Your task to perform on an android device: Open Reddit.com Image 0: 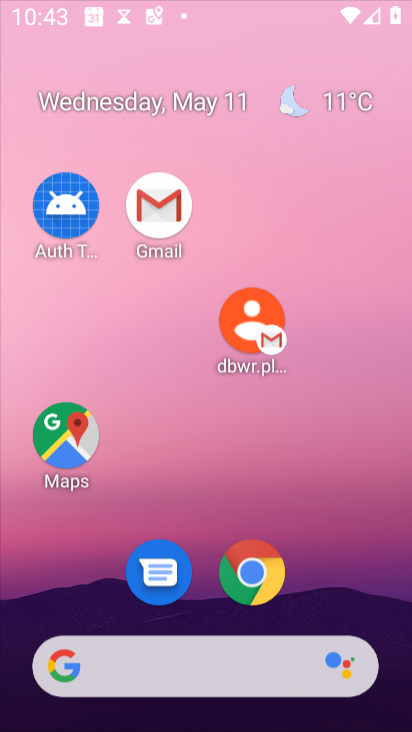
Step 0: drag from (189, 262) to (90, 44)
Your task to perform on an android device: Open Reddit.com Image 1: 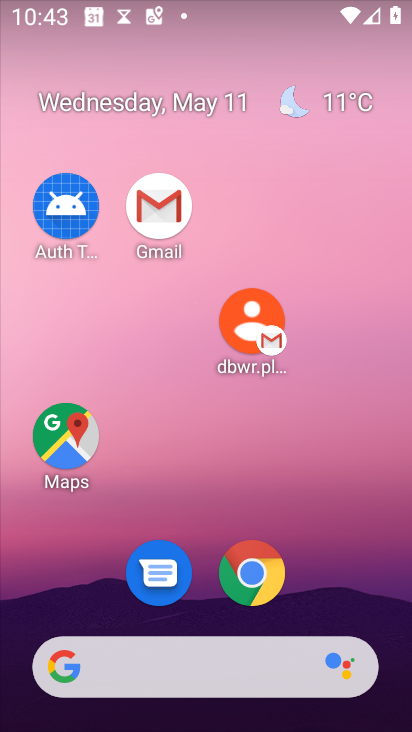
Step 1: drag from (316, 536) to (138, 11)
Your task to perform on an android device: Open Reddit.com Image 2: 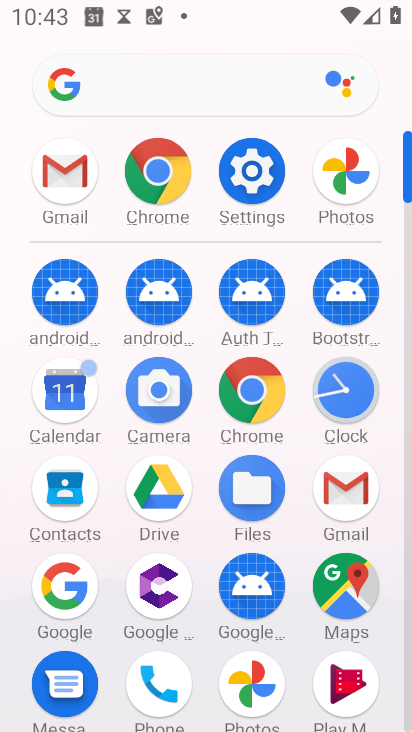
Step 2: click (163, 170)
Your task to perform on an android device: Open Reddit.com Image 3: 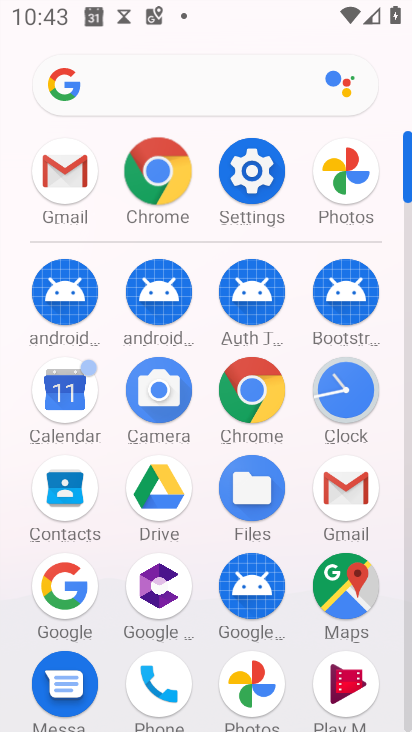
Step 3: click (163, 170)
Your task to perform on an android device: Open Reddit.com Image 4: 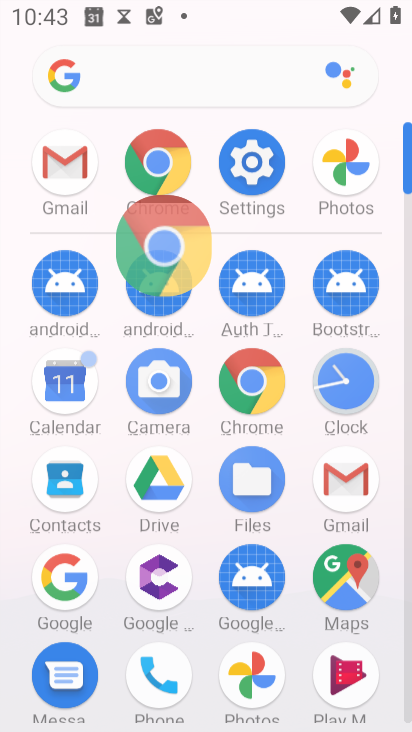
Step 4: click (163, 170)
Your task to perform on an android device: Open Reddit.com Image 5: 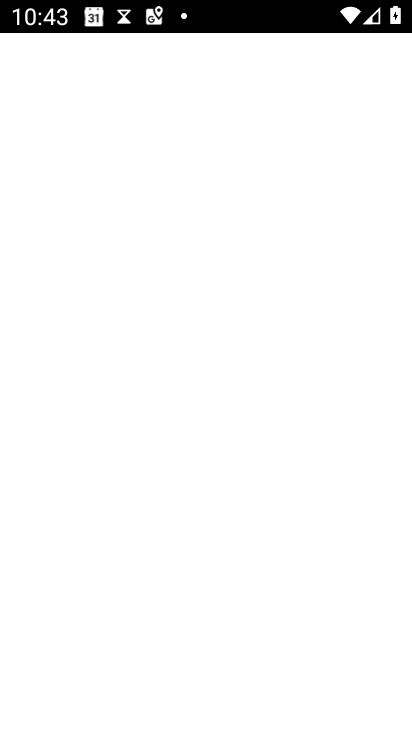
Step 5: click (165, 173)
Your task to perform on an android device: Open Reddit.com Image 6: 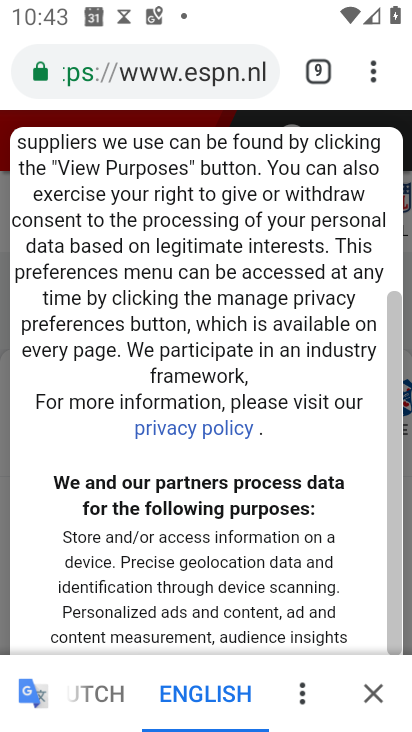
Step 6: click (373, 73)
Your task to perform on an android device: Open Reddit.com Image 7: 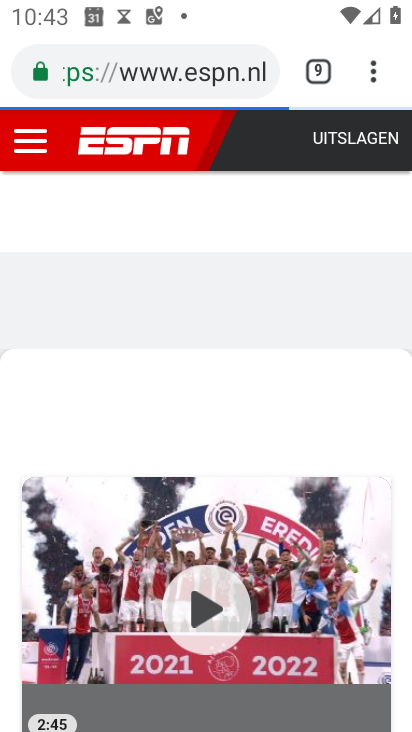
Step 7: drag from (375, 68) to (91, 143)
Your task to perform on an android device: Open Reddit.com Image 8: 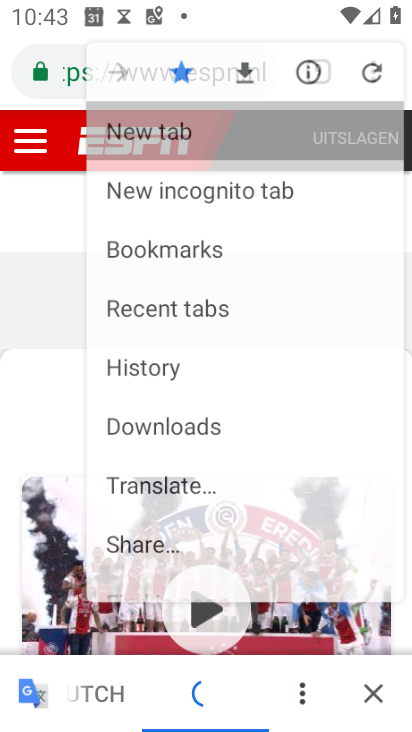
Step 8: click (91, 143)
Your task to perform on an android device: Open Reddit.com Image 9: 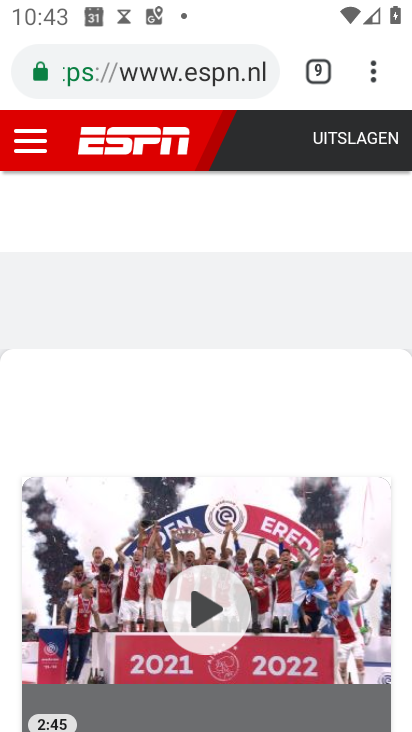
Step 9: click (92, 142)
Your task to perform on an android device: Open Reddit.com Image 10: 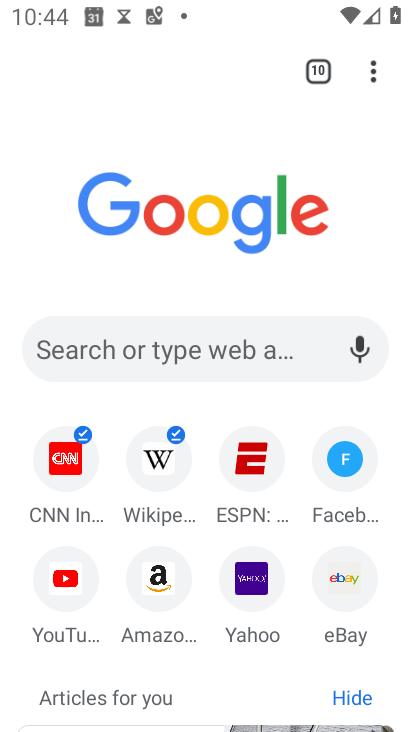
Step 10: click (100, 352)
Your task to perform on an android device: Open Reddit.com Image 11: 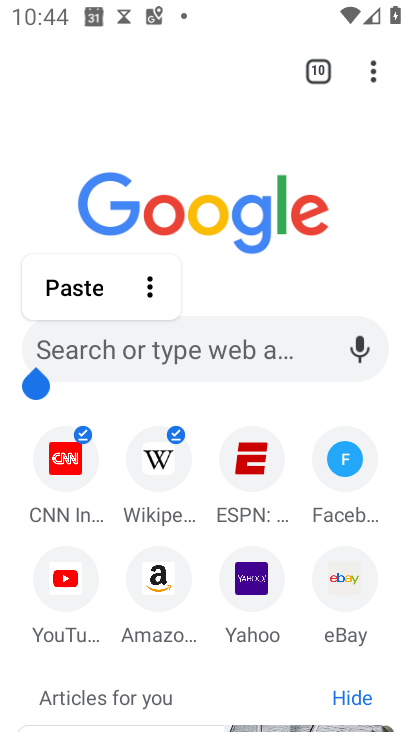
Step 11: click (72, 339)
Your task to perform on an android device: Open Reddit.com Image 12: 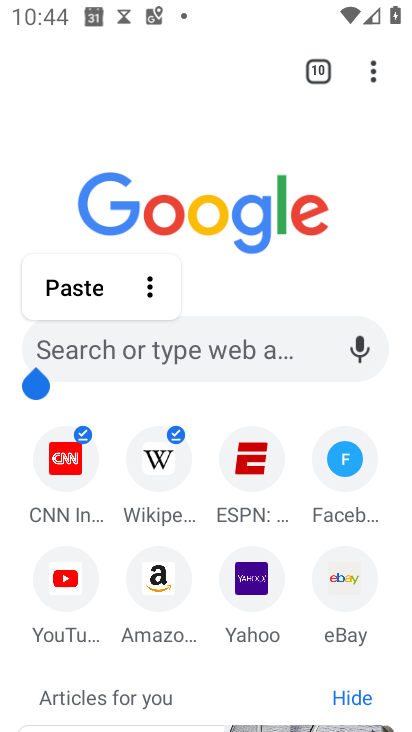
Step 12: click (72, 345)
Your task to perform on an android device: Open Reddit.com Image 13: 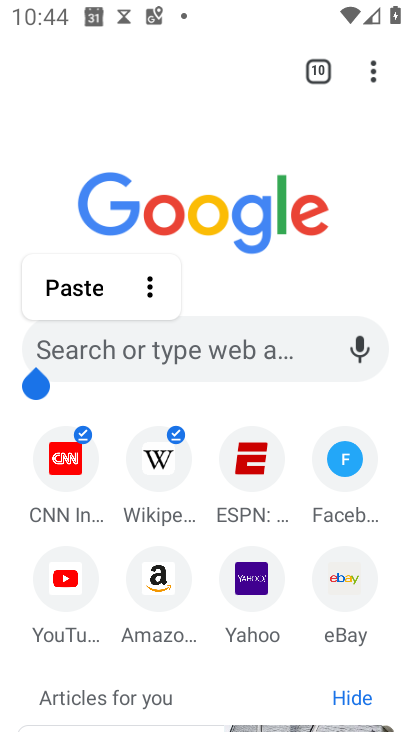
Step 13: click (71, 347)
Your task to perform on an android device: Open Reddit.com Image 14: 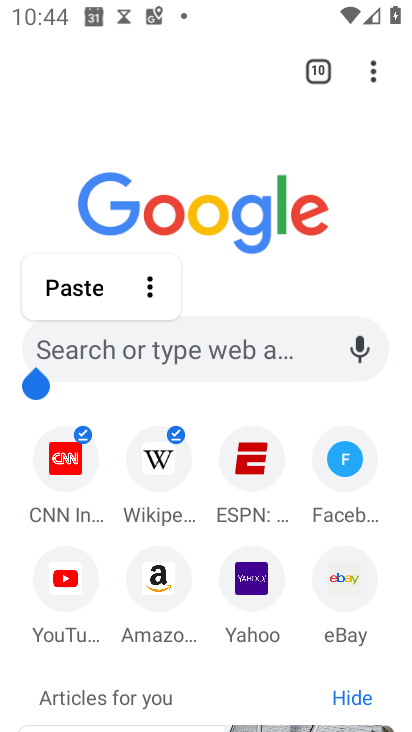
Step 14: click (71, 347)
Your task to perform on an android device: Open Reddit.com Image 15: 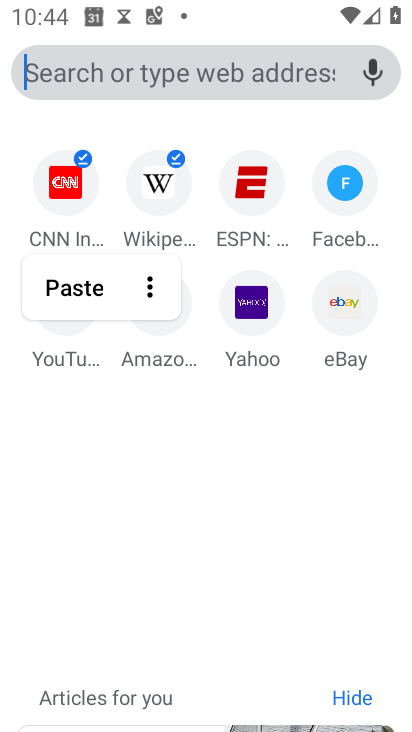
Step 15: click (71, 347)
Your task to perform on an android device: Open Reddit.com Image 16: 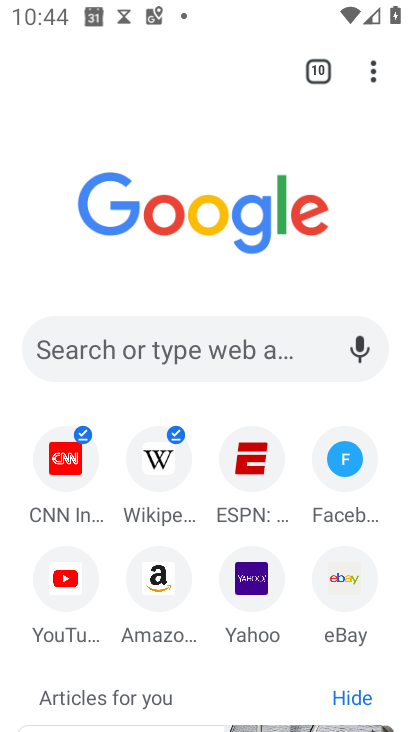
Step 16: click (70, 348)
Your task to perform on an android device: Open Reddit.com Image 17: 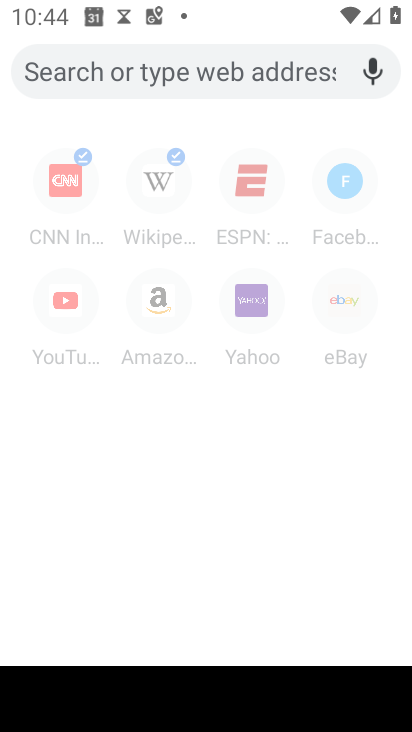
Step 17: click (77, 342)
Your task to perform on an android device: Open Reddit.com Image 18: 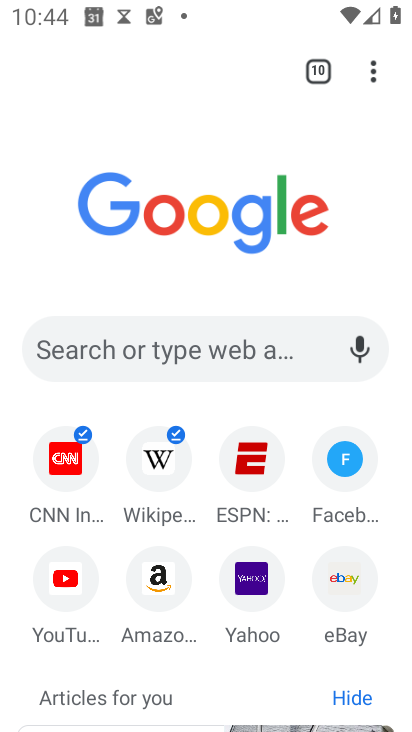
Step 18: click (46, 341)
Your task to perform on an android device: Open Reddit.com Image 19: 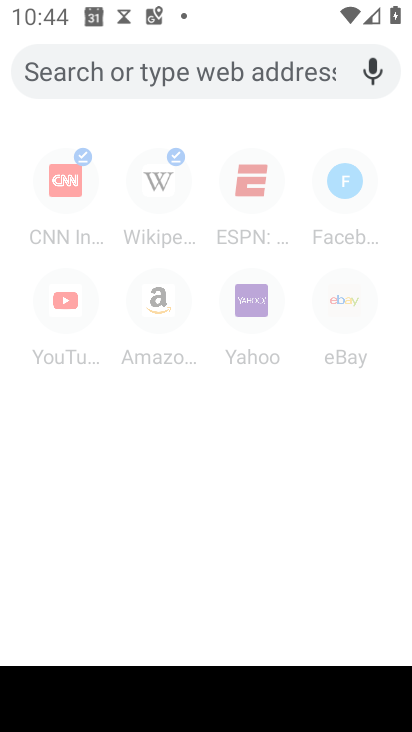
Step 19: type "reddit.com"
Your task to perform on an android device: Open Reddit.com Image 20: 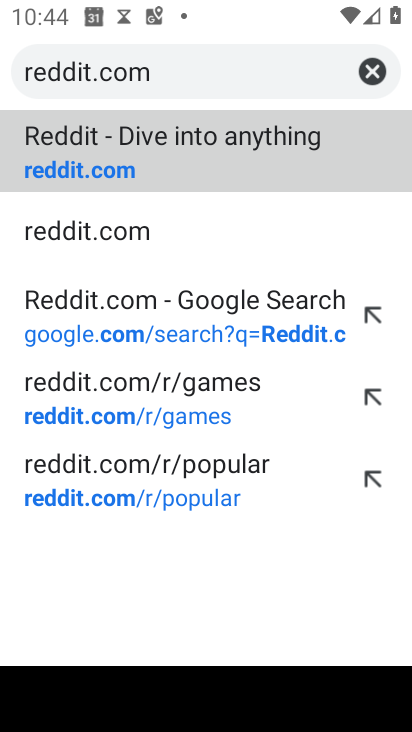
Step 20: click (82, 175)
Your task to perform on an android device: Open Reddit.com Image 21: 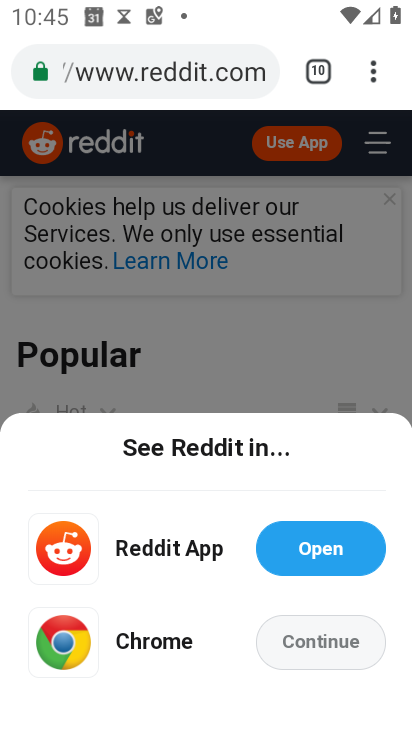
Step 21: press home button
Your task to perform on an android device: Open Reddit.com Image 22: 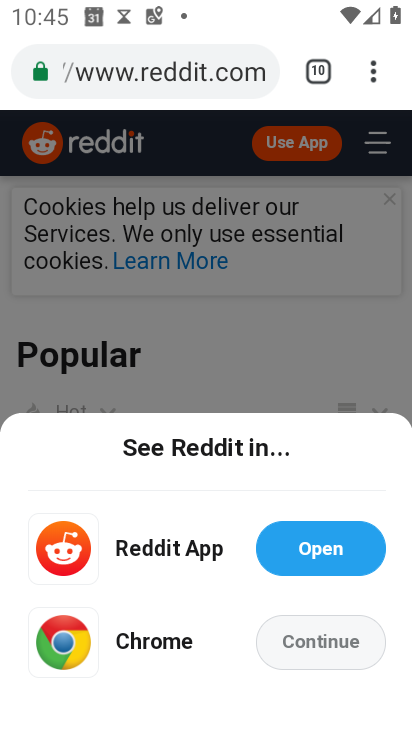
Step 22: press home button
Your task to perform on an android device: Open Reddit.com Image 23: 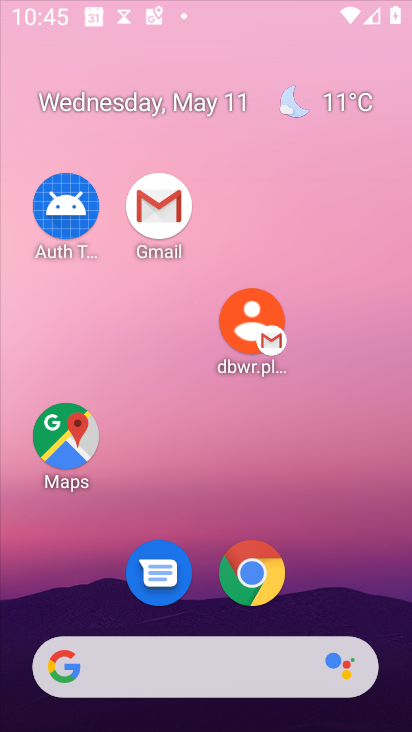
Step 23: press home button
Your task to perform on an android device: Open Reddit.com Image 24: 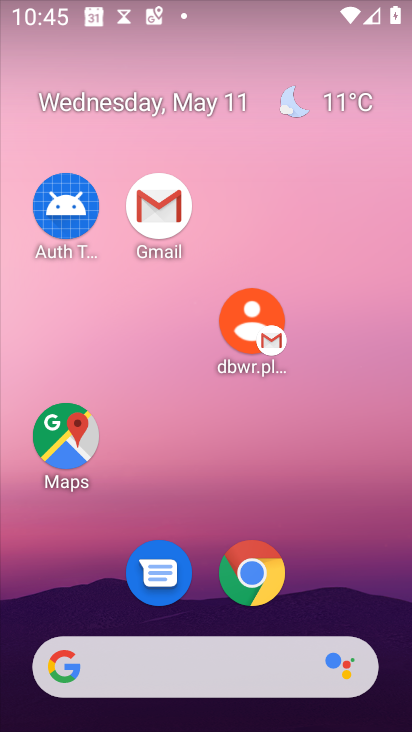
Step 24: press home button
Your task to perform on an android device: Open Reddit.com Image 25: 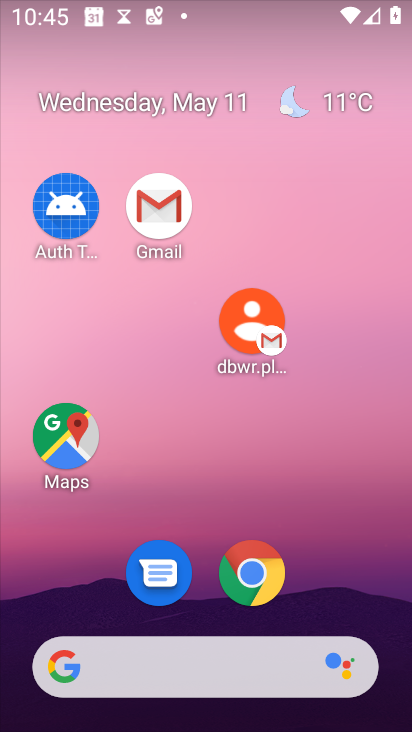
Step 25: press home button
Your task to perform on an android device: Open Reddit.com Image 26: 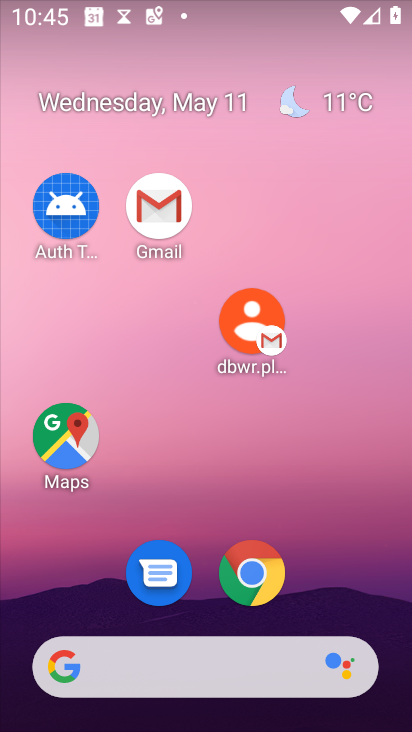
Step 26: drag from (345, 589) to (187, 66)
Your task to perform on an android device: Open Reddit.com Image 27: 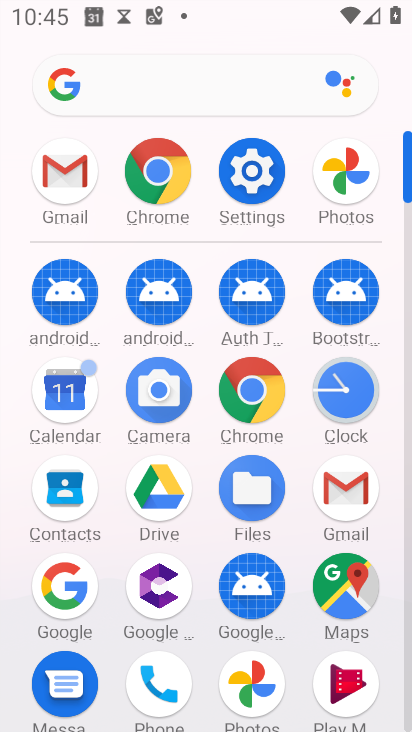
Step 27: click (151, 168)
Your task to perform on an android device: Open Reddit.com Image 28: 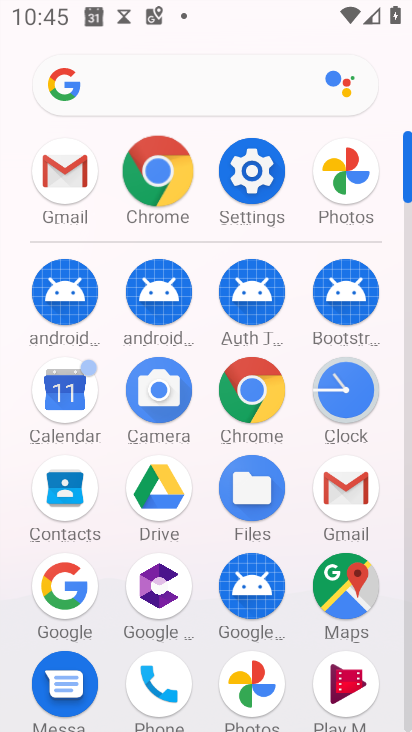
Step 28: click (151, 168)
Your task to perform on an android device: Open Reddit.com Image 29: 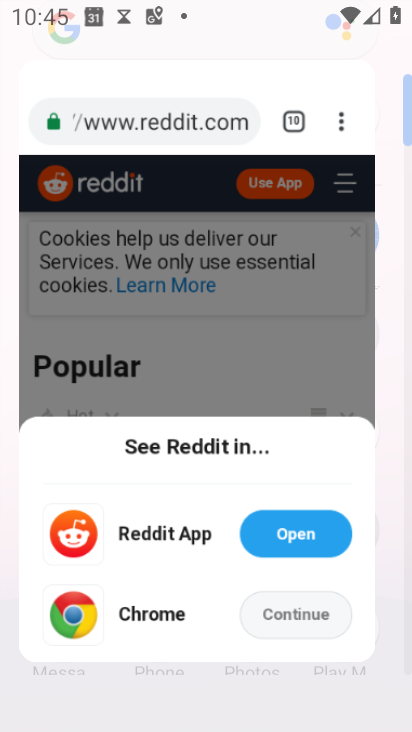
Step 29: click (151, 168)
Your task to perform on an android device: Open Reddit.com Image 30: 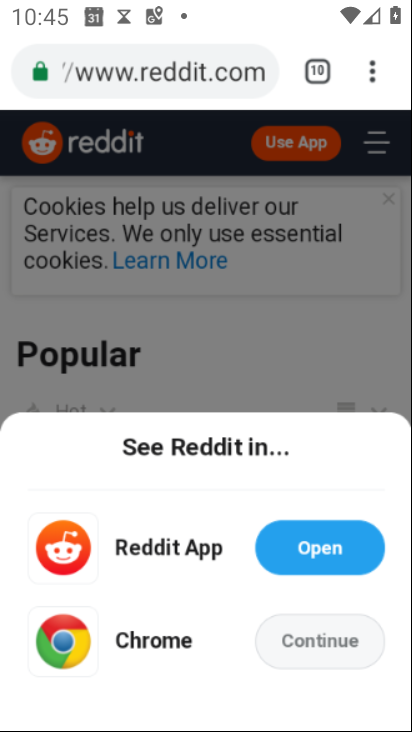
Step 30: click (151, 168)
Your task to perform on an android device: Open Reddit.com Image 31: 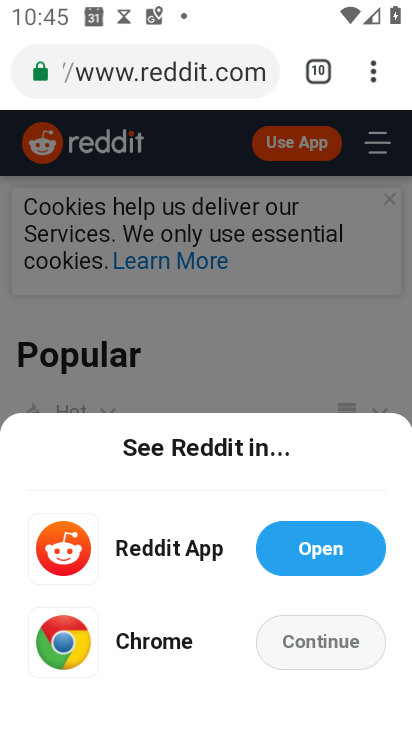
Step 31: click (369, 76)
Your task to perform on an android device: Open Reddit.com Image 32: 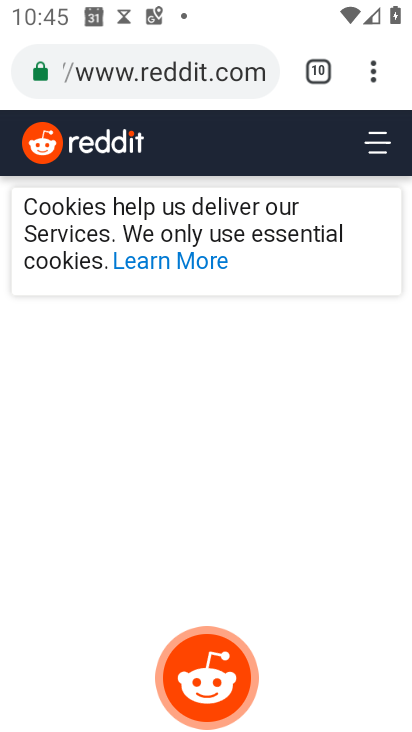
Step 32: click (206, 89)
Your task to perform on an android device: Open Reddit.com Image 33: 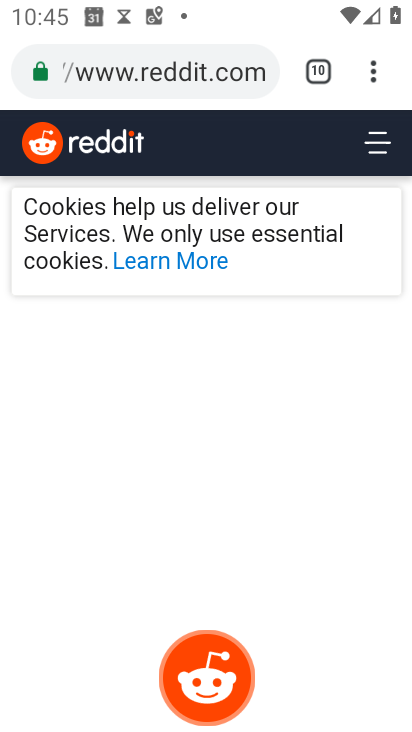
Step 33: drag from (192, 411) to (192, 255)
Your task to perform on an android device: Open Reddit.com Image 34: 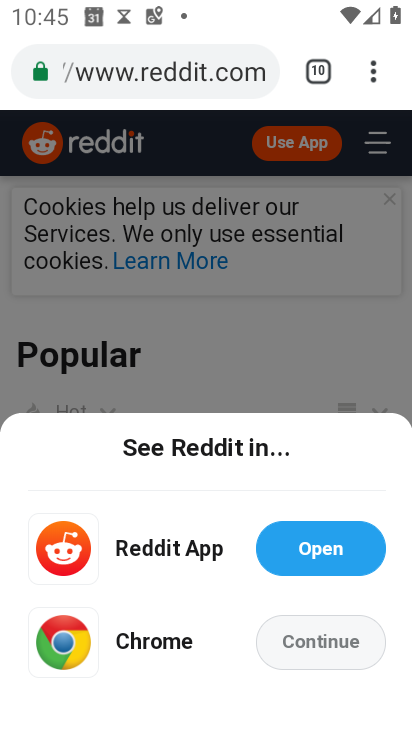
Step 34: click (298, 544)
Your task to perform on an android device: Open Reddit.com Image 35: 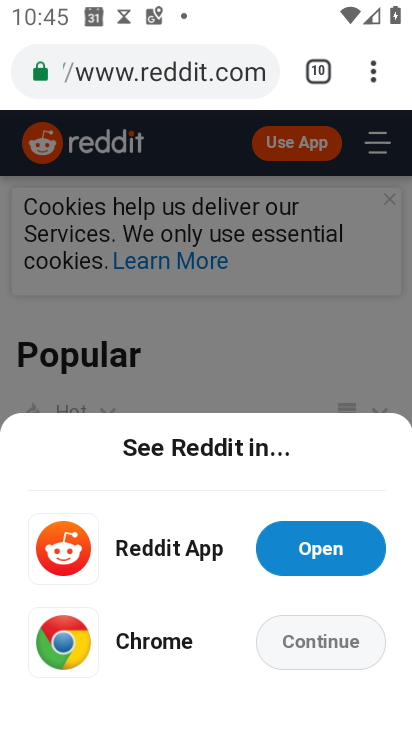
Step 35: click (298, 544)
Your task to perform on an android device: Open Reddit.com Image 36: 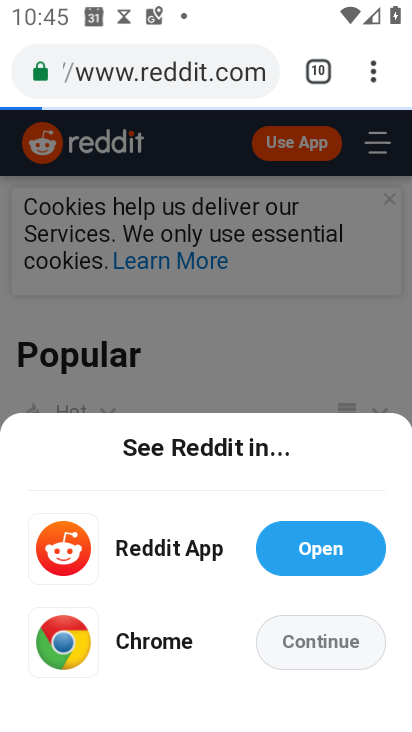
Step 36: click (298, 544)
Your task to perform on an android device: Open Reddit.com Image 37: 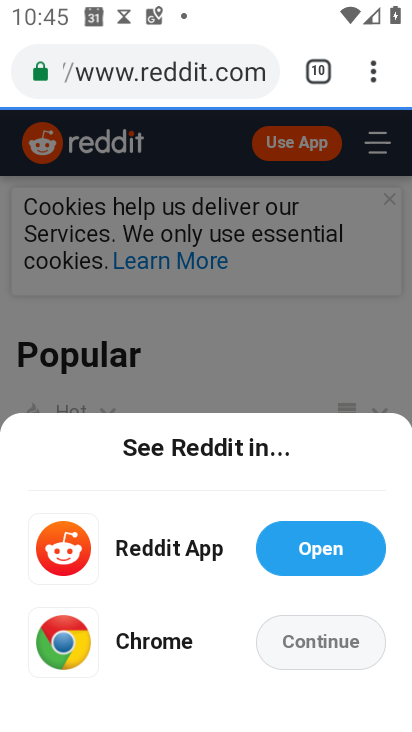
Step 37: click (299, 545)
Your task to perform on an android device: Open Reddit.com Image 38: 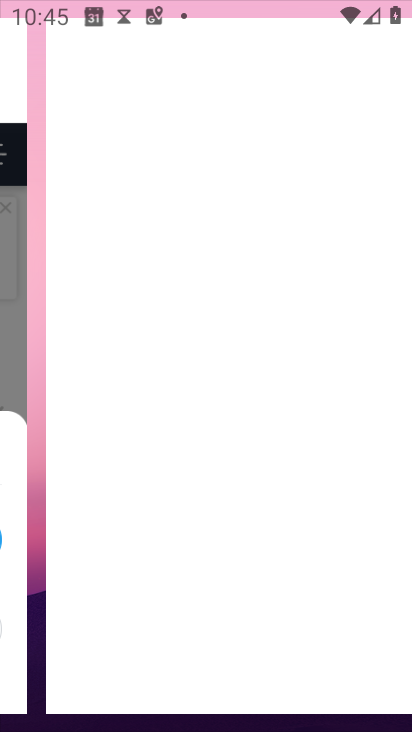
Step 38: click (299, 545)
Your task to perform on an android device: Open Reddit.com Image 39: 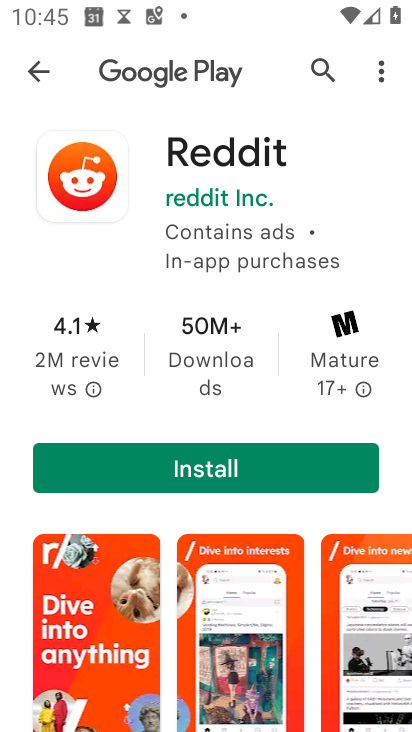
Step 39: click (235, 468)
Your task to perform on an android device: Open Reddit.com Image 40: 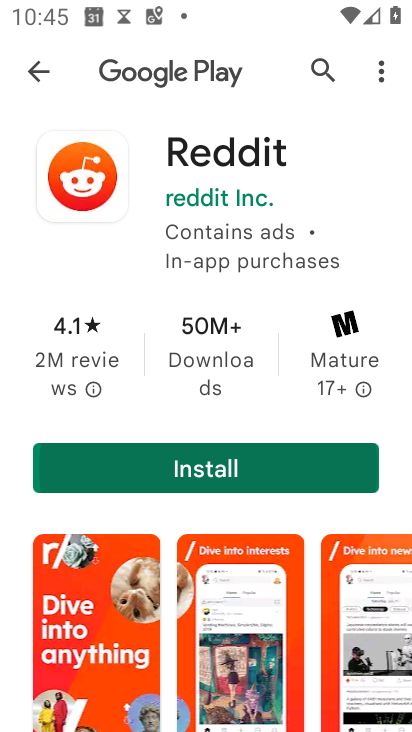
Step 40: click (234, 469)
Your task to perform on an android device: Open Reddit.com Image 41: 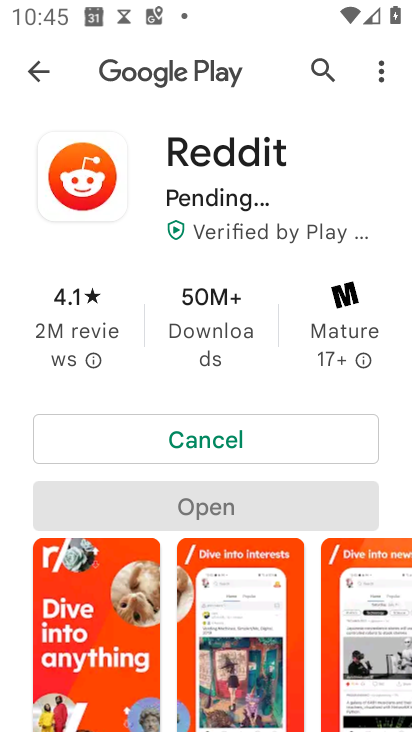
Step 41: click (234, 469)
Your task to perform on an android device: Open Reddit.com Image 42: 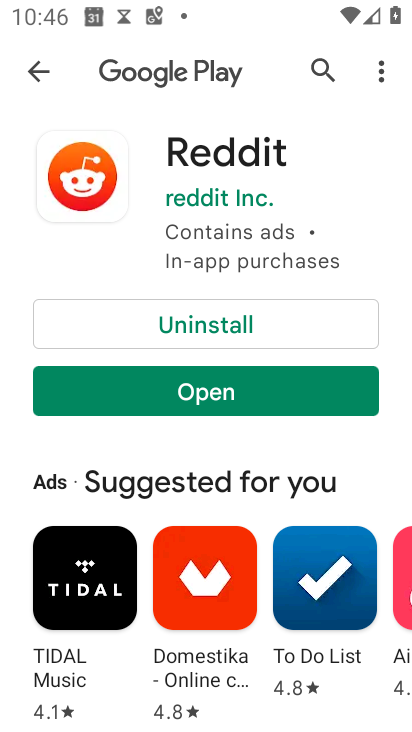
Step 42: click (227, 381)
Your task to perform on an android device: Open Reddit.com Image 43: 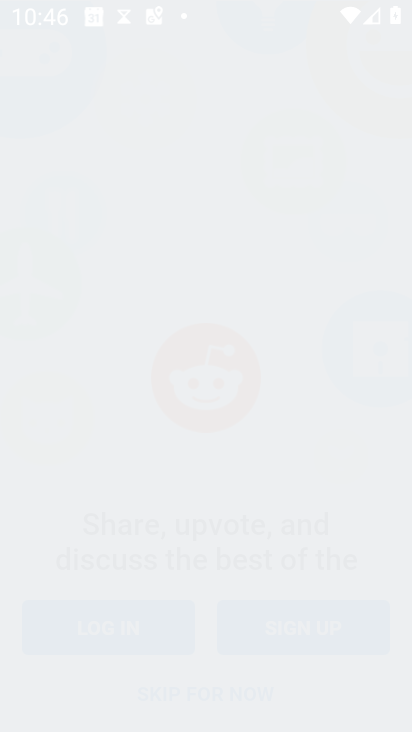
Step 43: click (226, 379)
Your task to perform on an android device: Open Reddit.com Image 44: 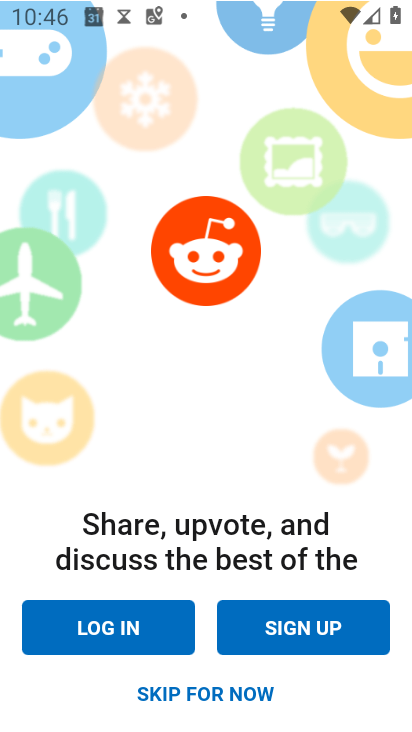
Step 44: click (226, 379)
Your task to perform on an android device: Open Reddit.com Image 45: 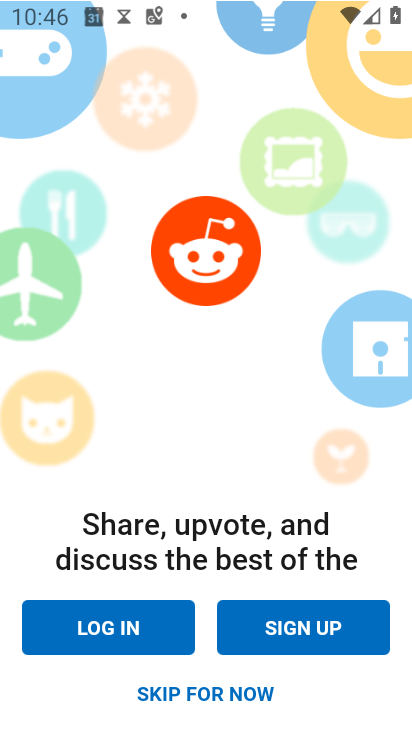
Step 45: click (205, 687)
Your task to perform on an android device: Open Reddit.com Image 46: 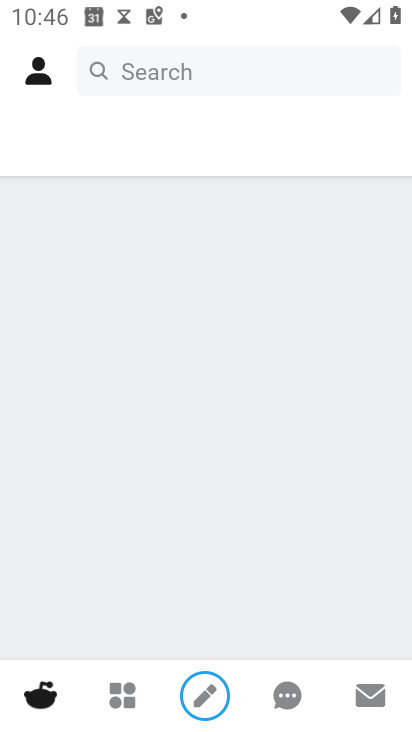
Step 46: click (210, 681)
Your task to perform on an android device: Open Reddit.com Image 47: 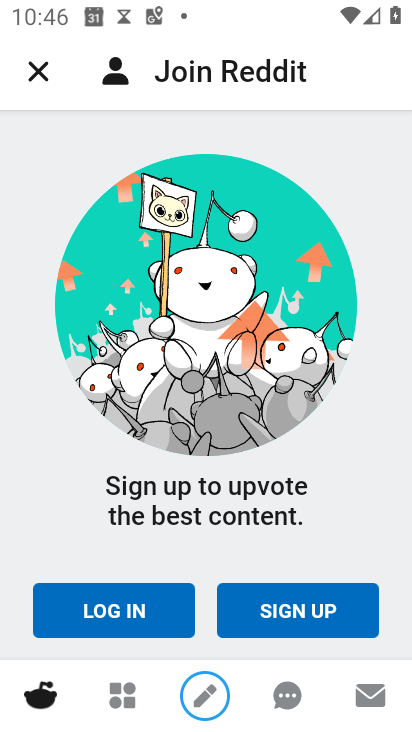
Step 47: task complete